Your task to perform on an android device: Show me recent news Image 0: 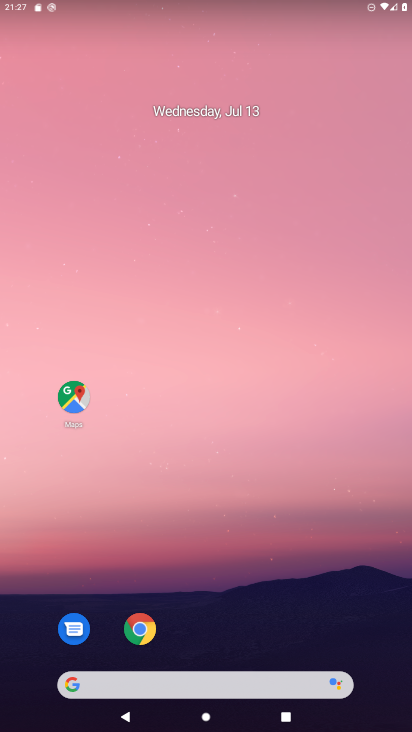
Step 0: drag from (258, 604) to (255, 23)
Your task to perform on an android device: Show me recent news Image 1: 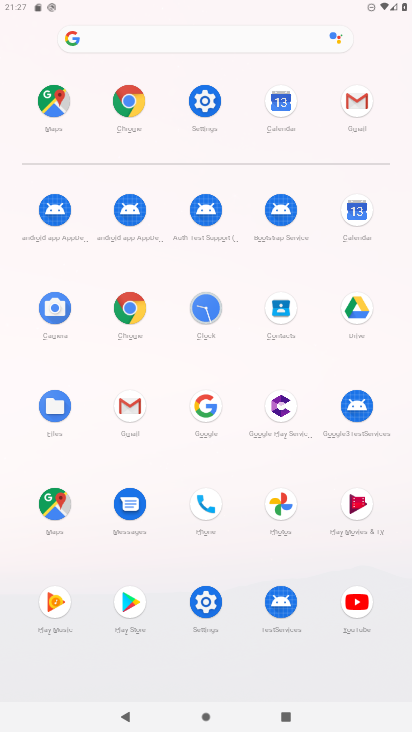
Step 1: click (129, 303)
Your task to perform on an android device: Show me recent news Image 2: 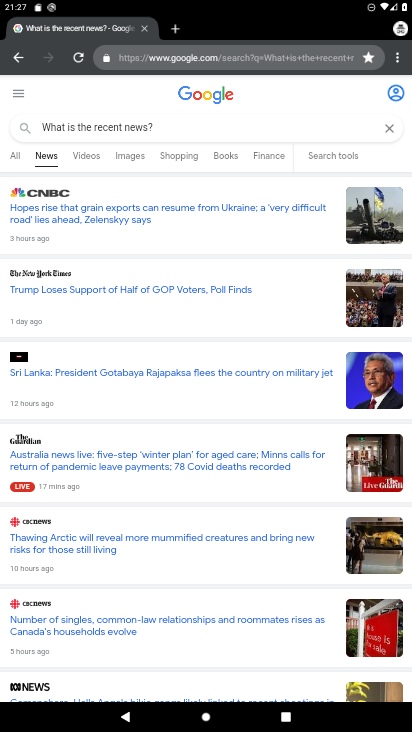
Step 2: click (178, 277)
Your task to perform on an android device: Show me recent news Image 3: 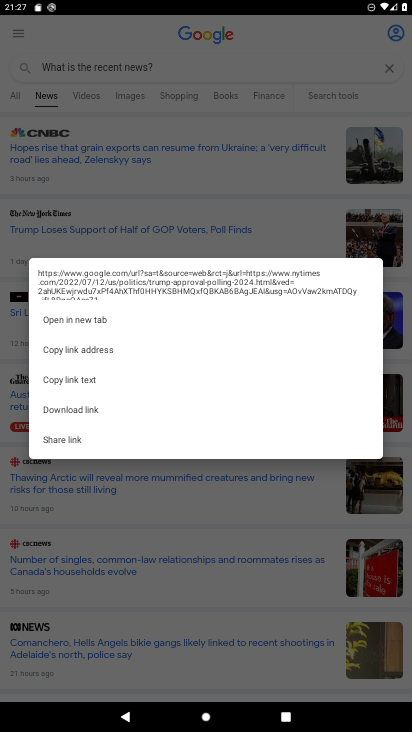
Step 3: task complete